Your task to perform on an android device: turn off wifi Image 0: 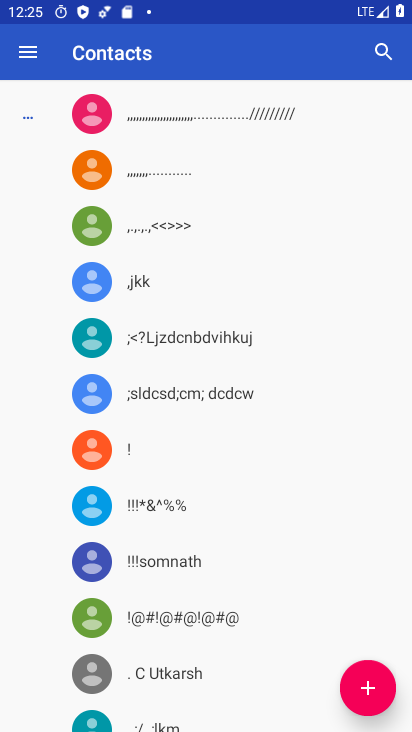
Step 0: press back button
Your task to perform on an android device: turn off wifi Image 1: 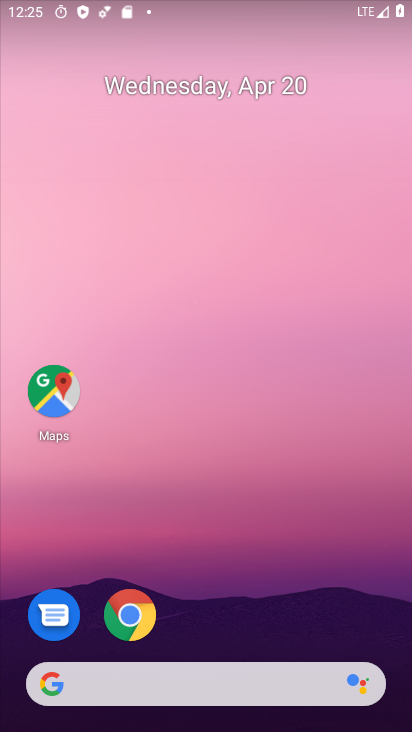
Step 1: drag from (176, 652) to (285, 107)
Your task to perform on an android device: turn off wifi Image 2: 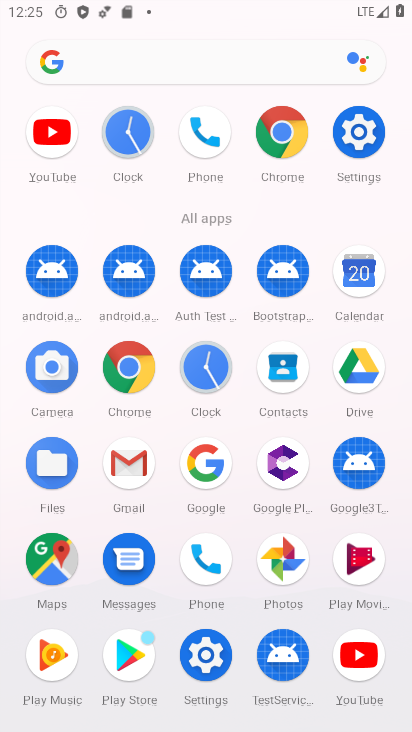
Step 2: click (198, 669)
Your task to perform on an android device: turn off wifi Image 3: 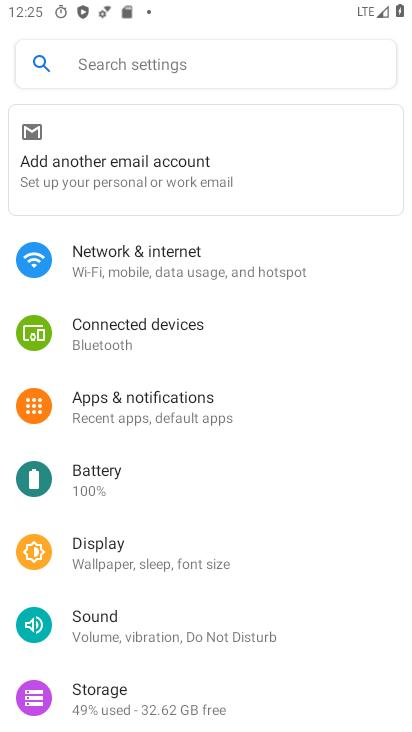
Step 3: click (224, 265)
Your task to perform on an android device: turn off wifi Image 4: 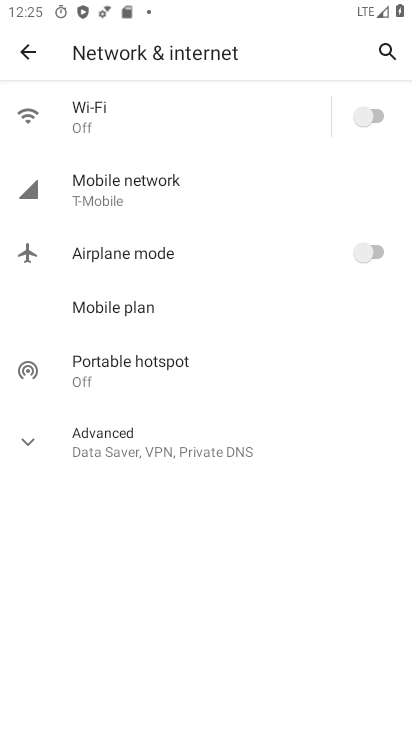
Step 4: task complete